Your task to perform on an android device: open wifi settings Image 0: 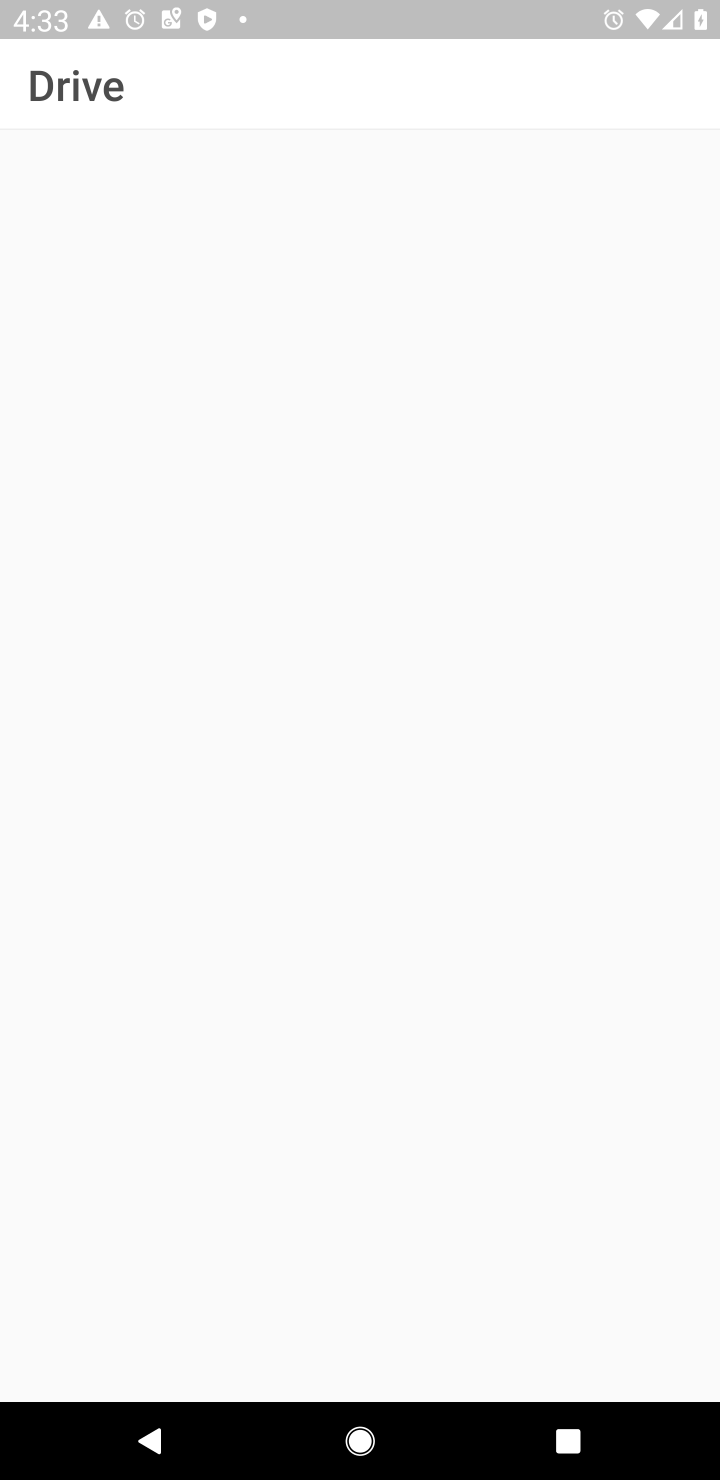
Step 0: press home button
Your task to perform on an android device: open wifi settings Image 1: 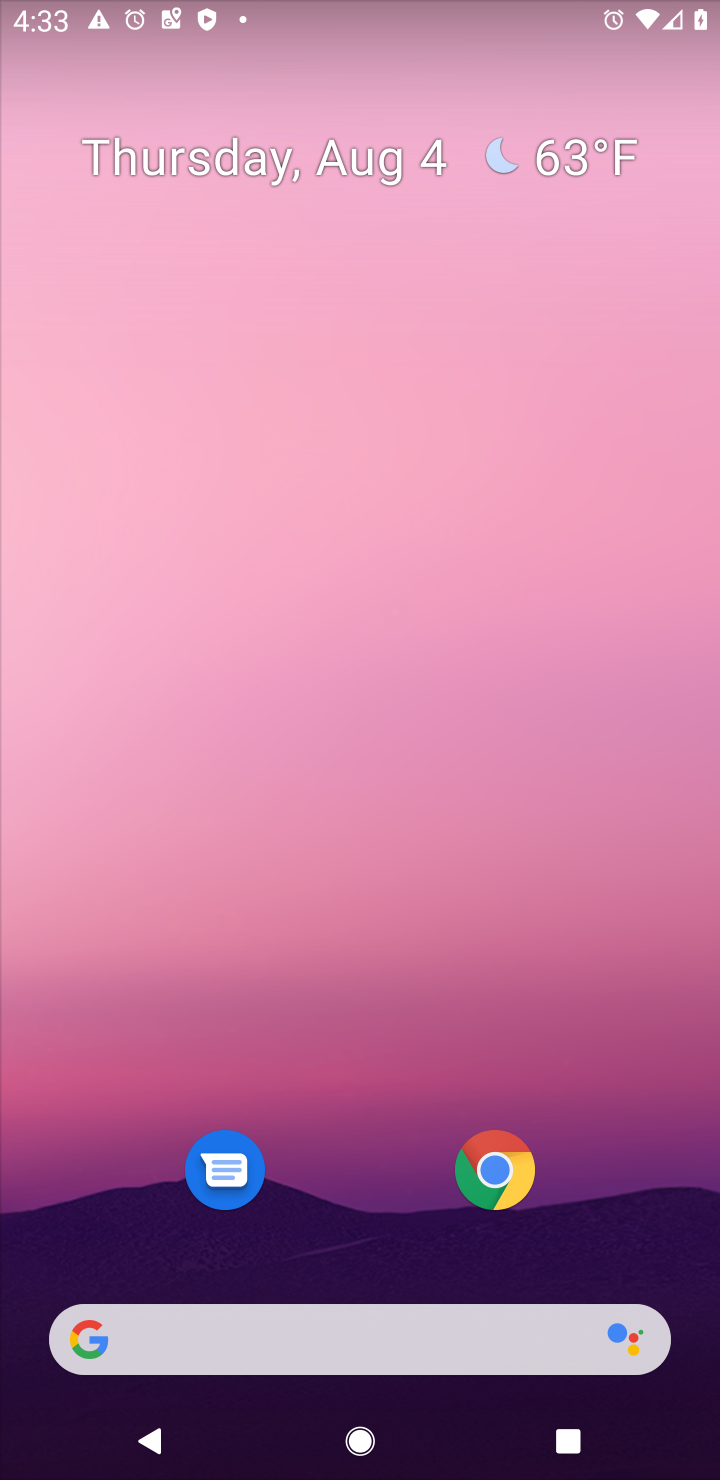
Step 1: drag from (592, 1212) to (437, 398)
Your task to perform on an android device: open wifi settings Image 2: 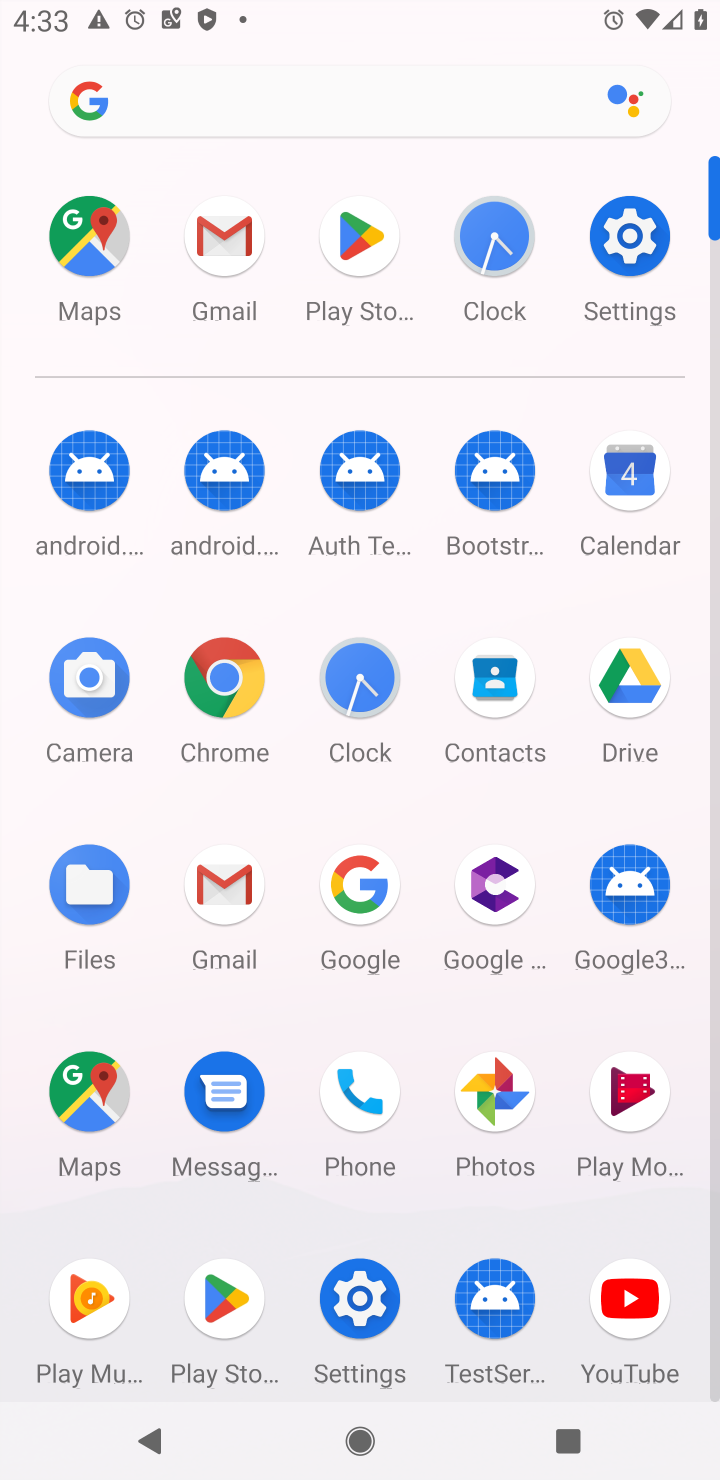
Step 2: click (364, 1295)
Your task to perform on an android device: open wifi settings Image 3: 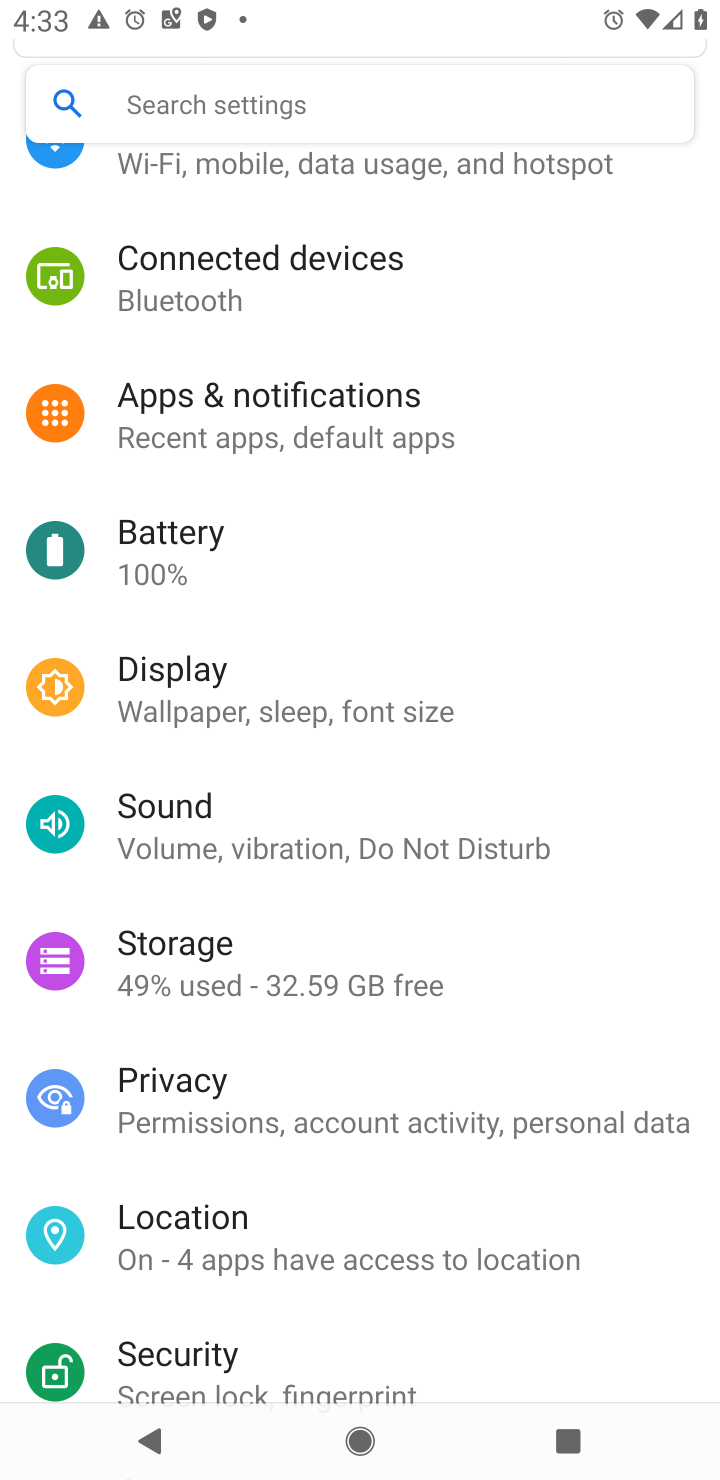
Step 3: drag from (496, 490) to (524, 890)
Your task to perform on an android device: open wifi settings Image 4: 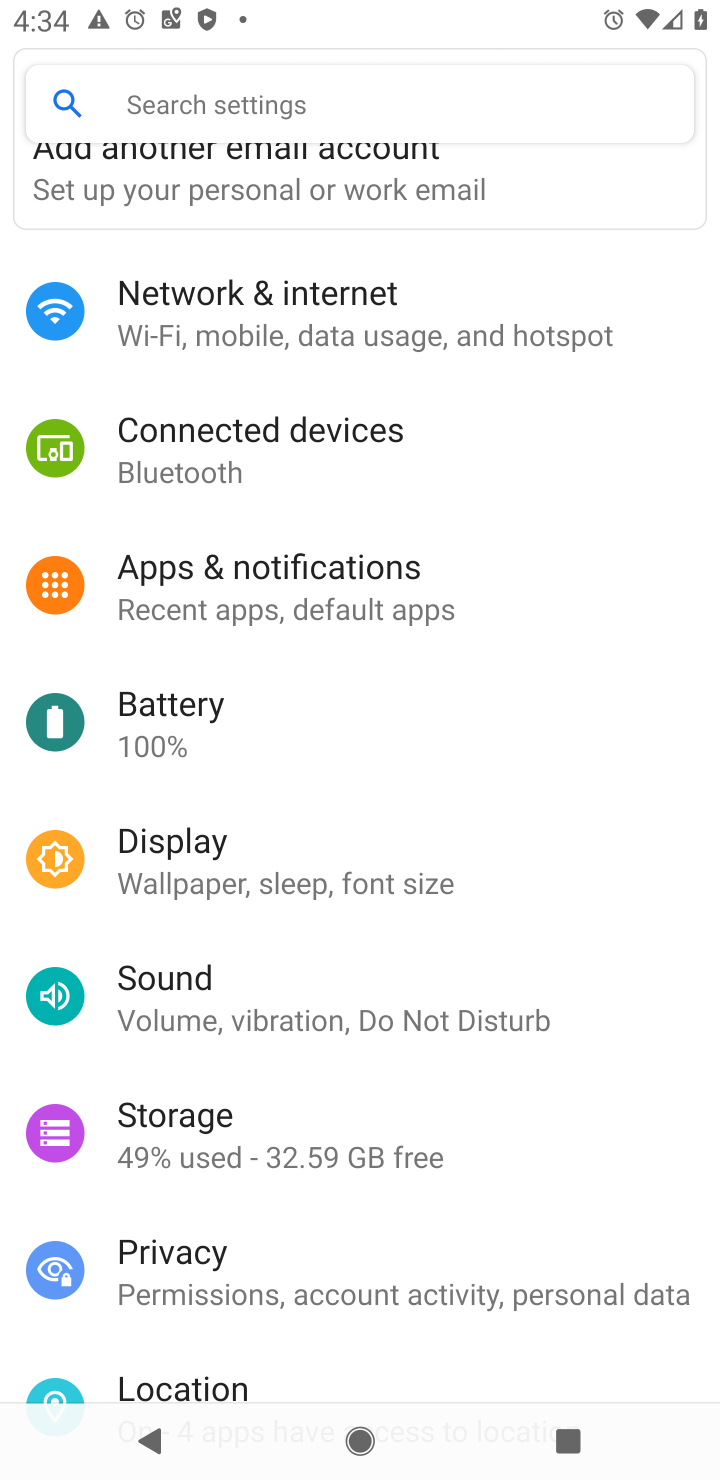
Step 4: click (276, 330)
Your task to perform on an android device: open wifi settings Image 5: 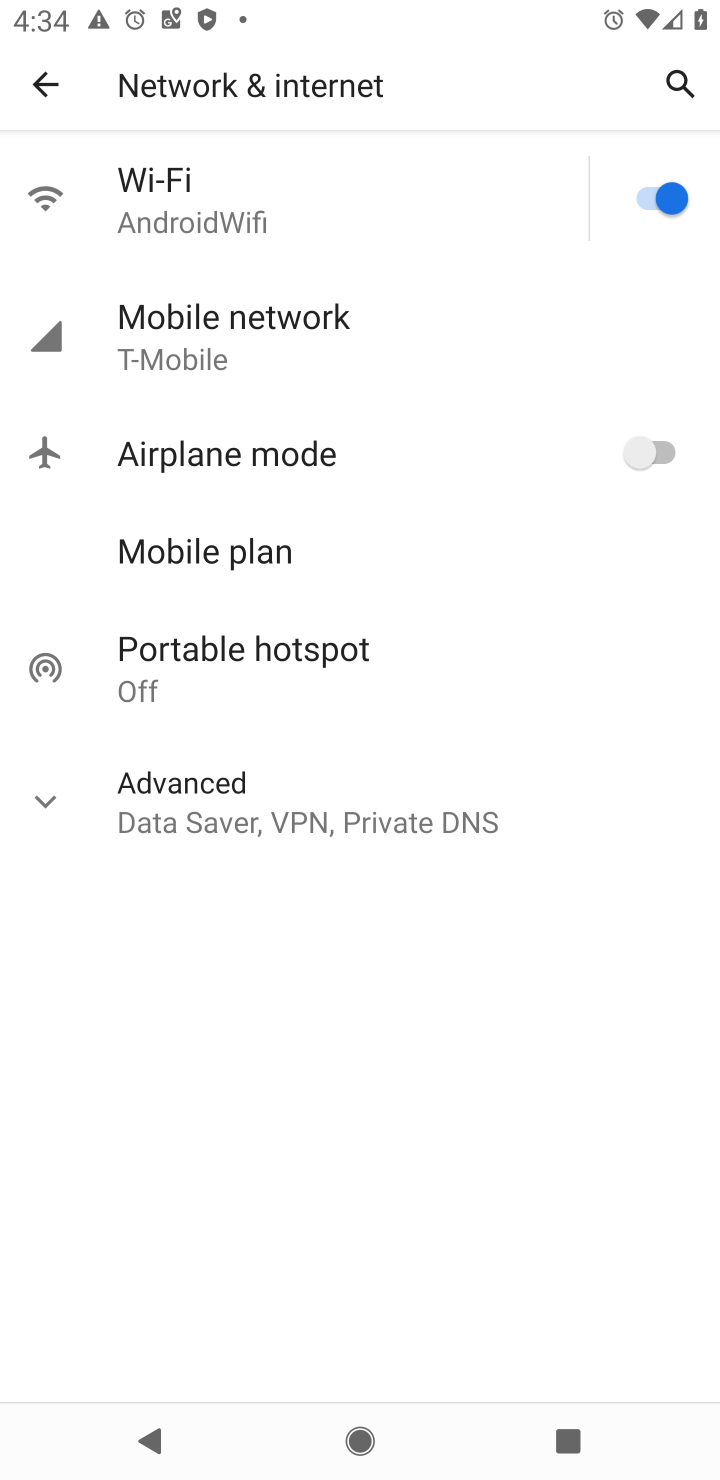
Step 5: click (170, 195)
Your task to perform on an android device: open wifi settings Image 6: 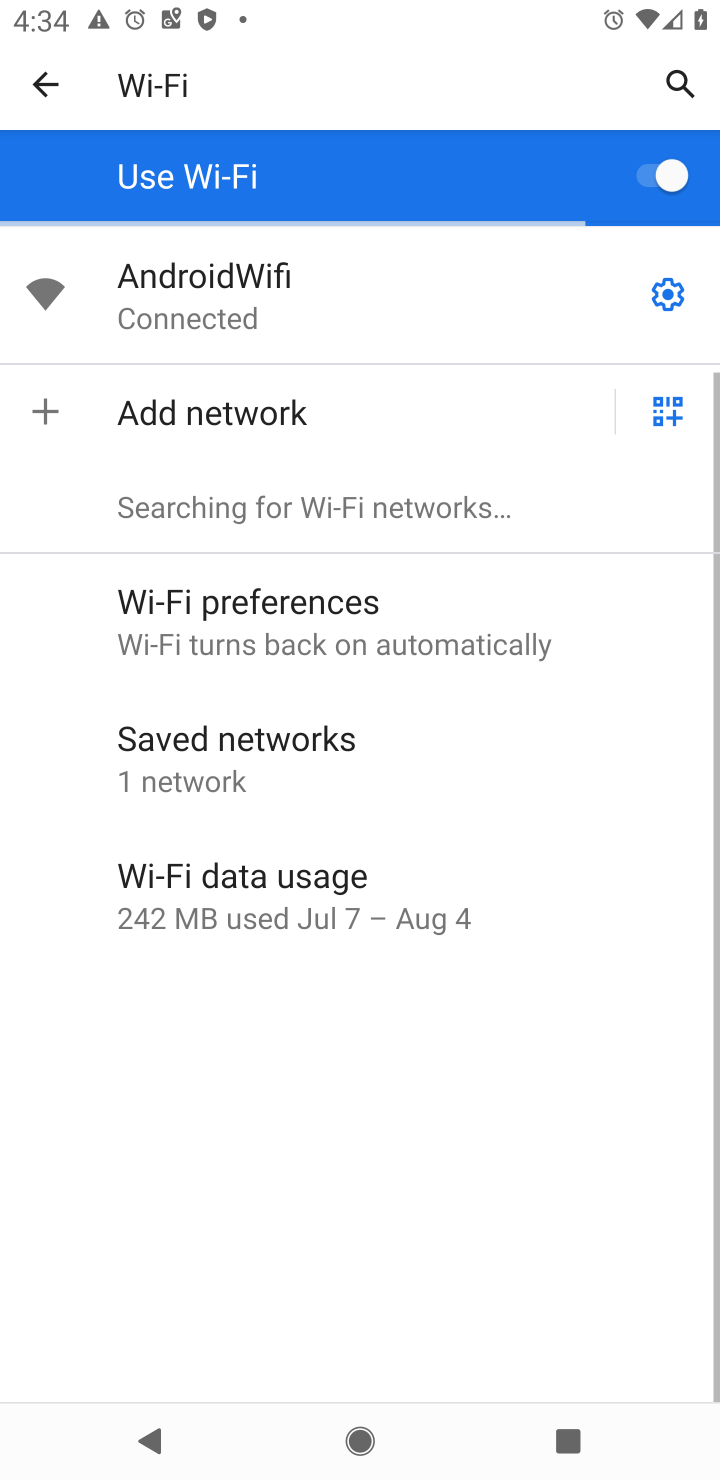
Step 6: click (665, 283)
Your task to perform on an android device: open wifi settings Image 7: 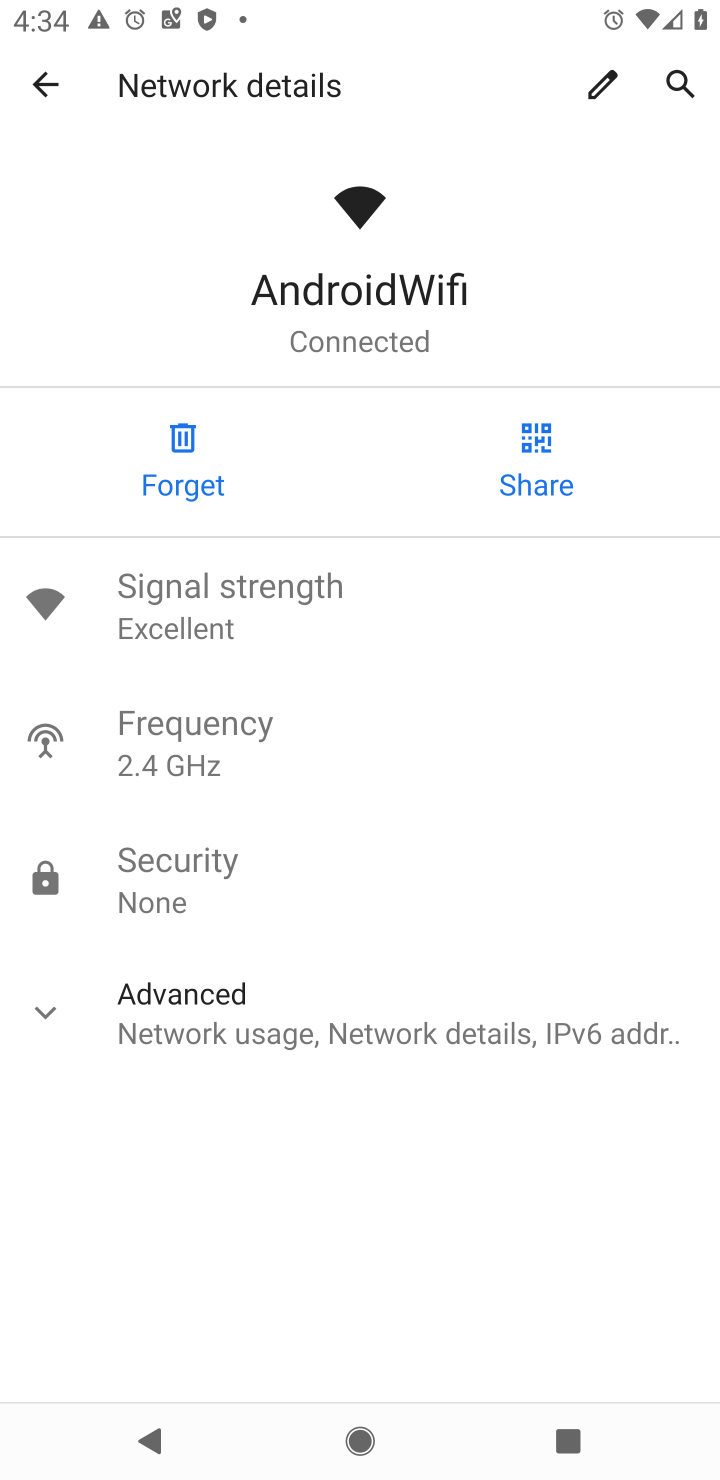
Step 7: task complete